Your task to perform on an android device: clear history in the chrome app Image 0: 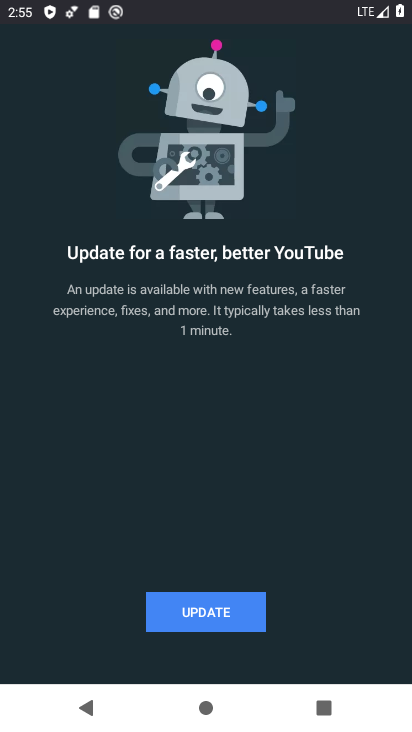
Step 0: press back button
Your task to perform on an android device: clear history in the chrome app Image 1: 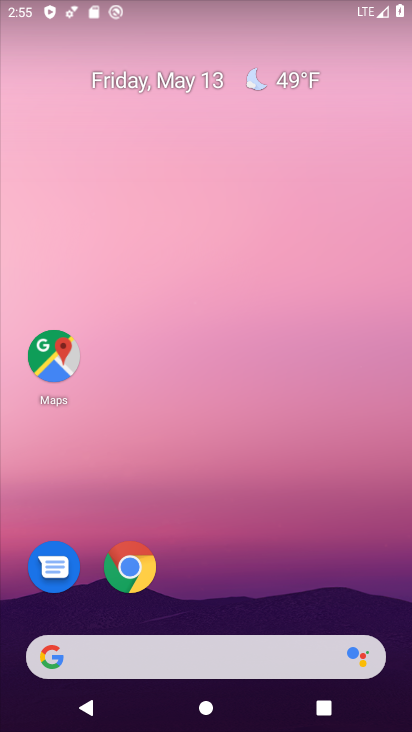
Step 1: click (137, 571)
Your task to perform on an android device: clear history in the chrome app Image 2: 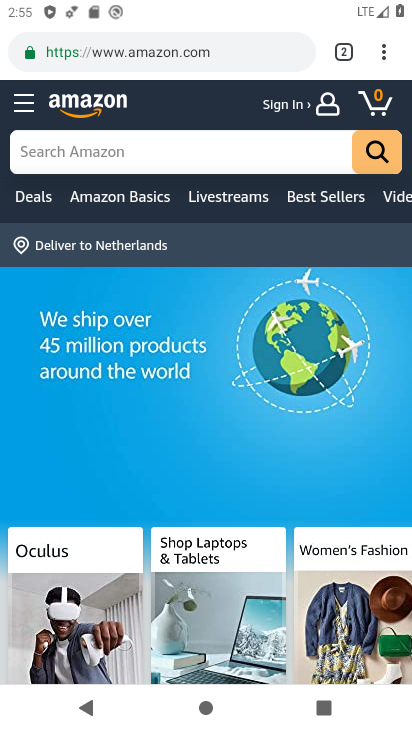
Step 2: click (384, 49)
Your task to perform on an android device: clear history in the chrome app Image 3: 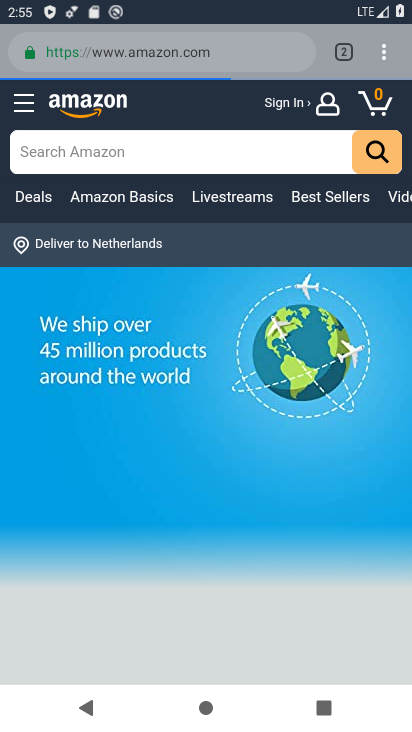
Step 3: drag from (385, 60) to (195, 292)
Your task to perform on an android device: clear history in the chrome app Image 4: 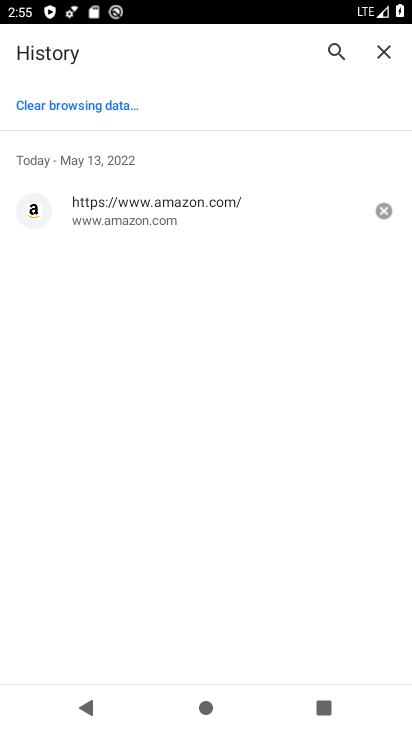
Step 4: click (69, 104)
Your task to perform on an android device: clear history in the chrome app Image 5: 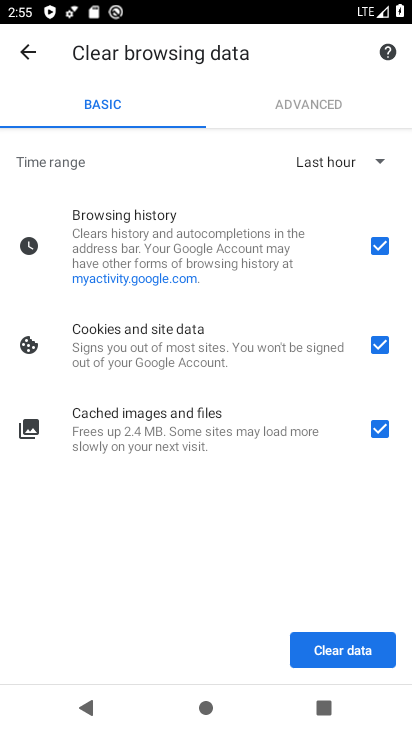
Step 5: click (369, 672)
Your task to perform on an android device: clear history in the chrome app Image 6: 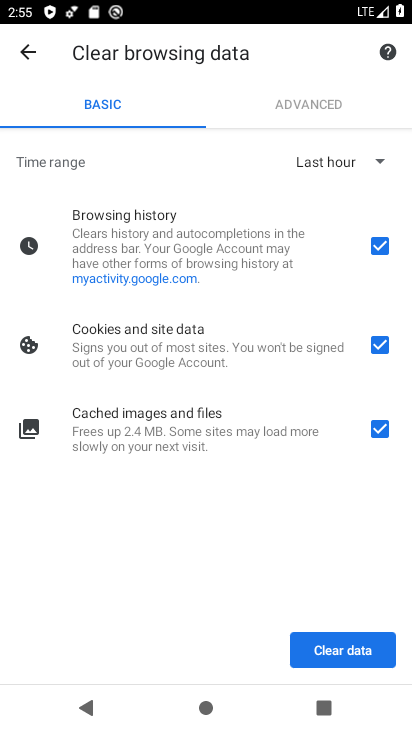
Step 6: click (359, 654)
Your task to perform on an android device: clear history in the chrome app Image 7: 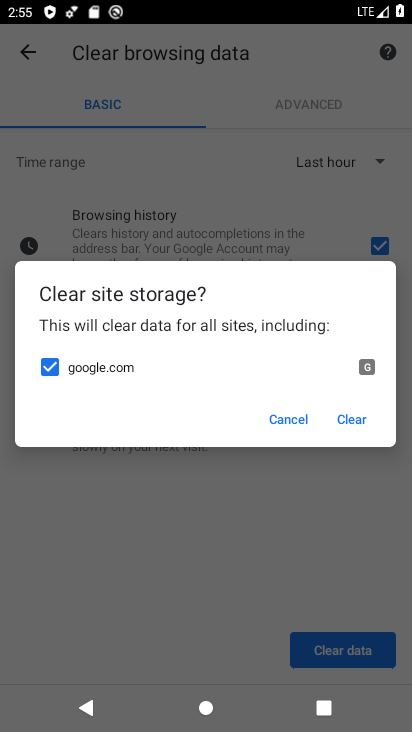
Step 7: click (346, 416)
Your task to perform on an android device: clear history in the chrome app Image 8: 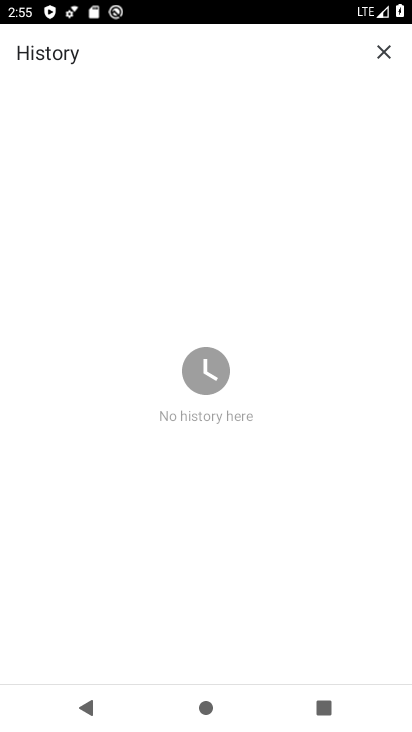
Step 8: task complete